Your task to perform on an android device: toggle wifi Image 0: 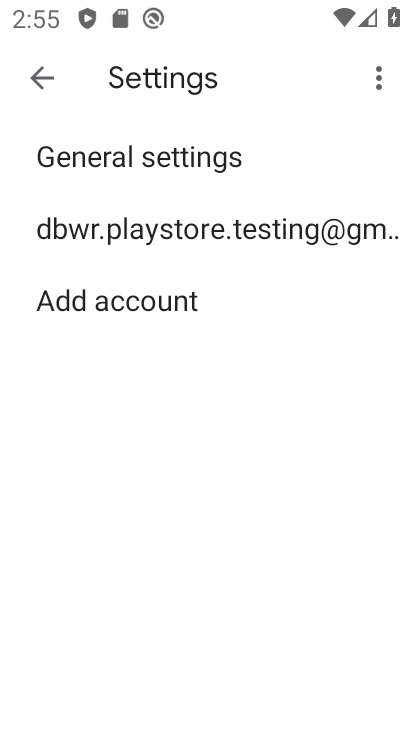
Step 0: press home button
Your task to perform on an android device: toggle wifi Image 1: 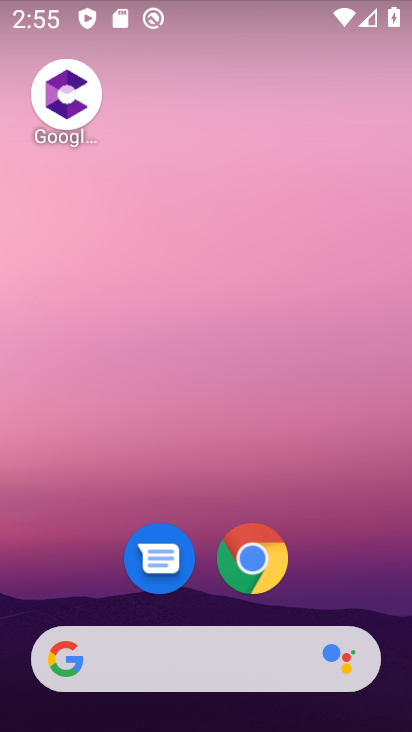
Step 1: drag from (353, 624) to (348, 8)
Your task to perform on an android device: toggle wifi Image 2: 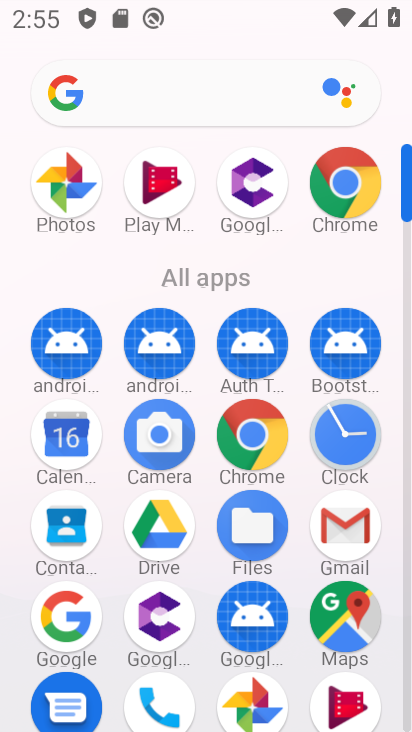
Step 2: drag from (412, 522) to (405, 470)
Your task to perform on an android device: toggle wifi Image 3: 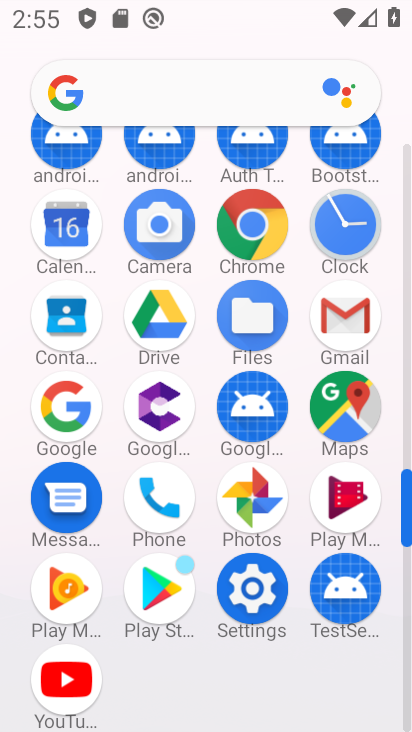
Step 3: click (239, 591)
Your task to perform on an android device: toggle wifi Image 4: 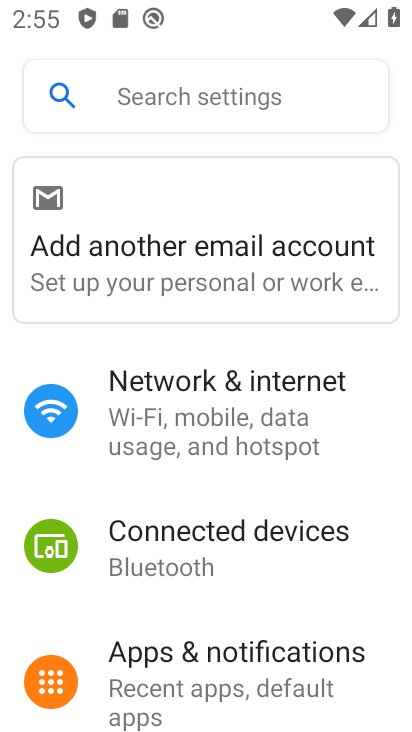
Step 4: click (212, 392)
Your task to perform on an android device: toggle wifi Image 5: 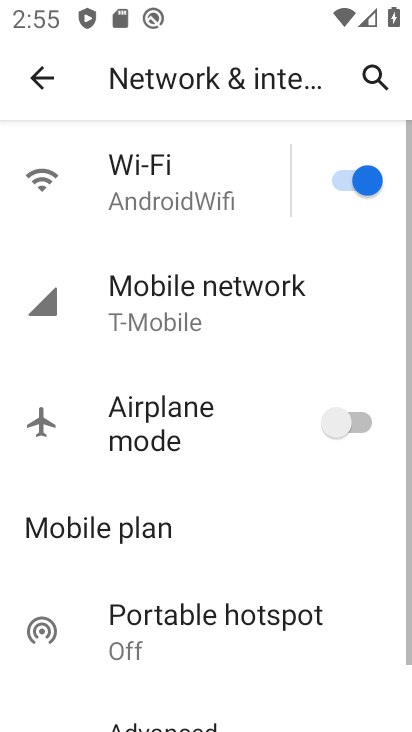
Step 5: click (345, 176)
Your task to perform on an android device: toggle wifi Image 6: 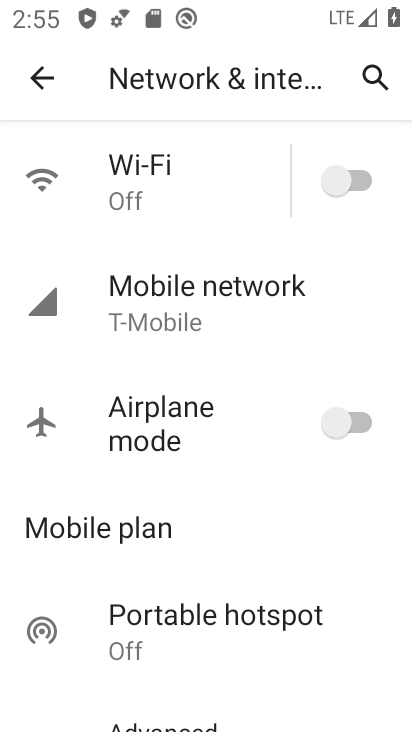
Step 6: task complete